Your task to perform on an android device: Open the stopwatch Image 0: 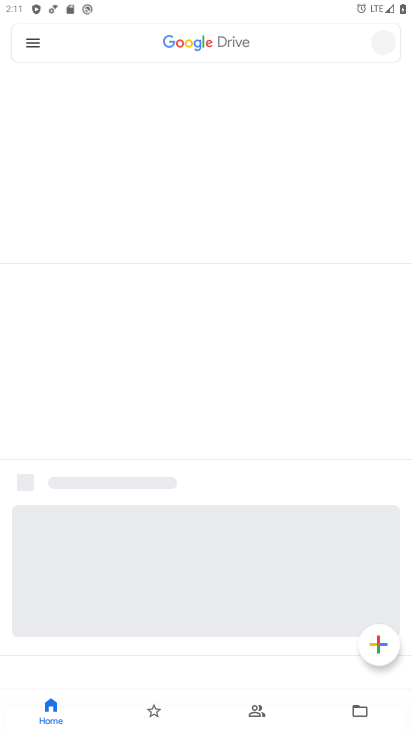
Step 0: drag from (311, 575) to (302, 455)
Your task to perform on an android device: Open the stopwatch Image 1: 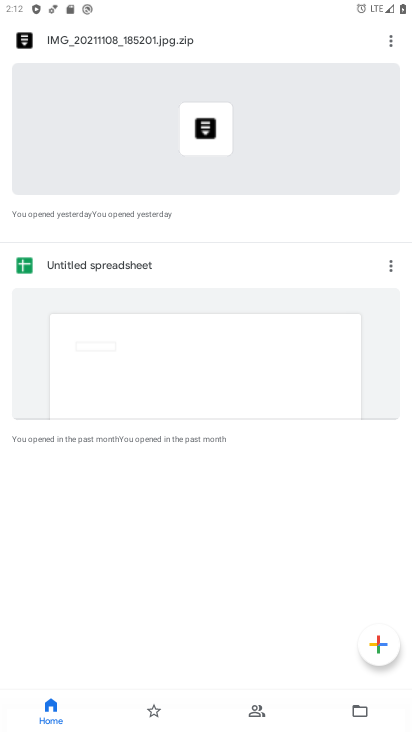
Step 1: press home button
Your task to perform on an android device: Open the stopwatch Image 2: 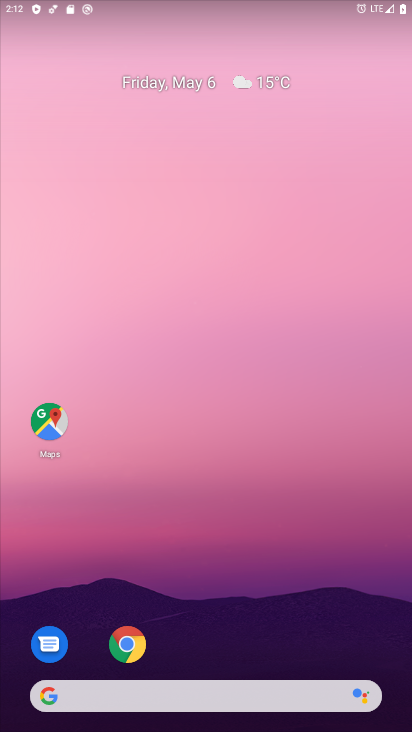
Step 2: drag from (216, 637) to (244, 72)
Your task to perform on an android device: Open the stopwatch Image 3: 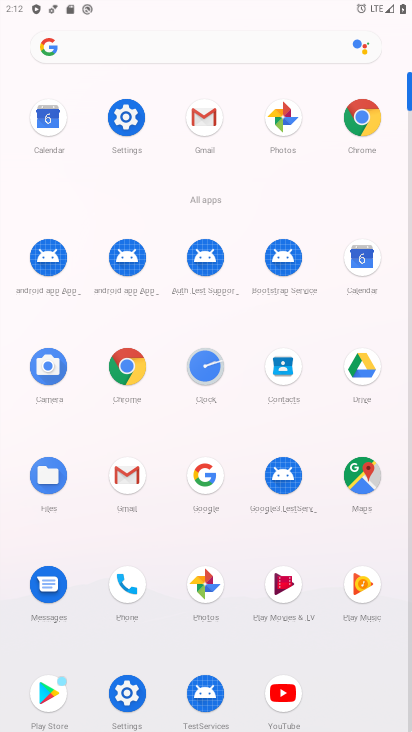
Step 3: click (210, 379)
Your task to perform on an android device: Open the stopwatch Image 4: 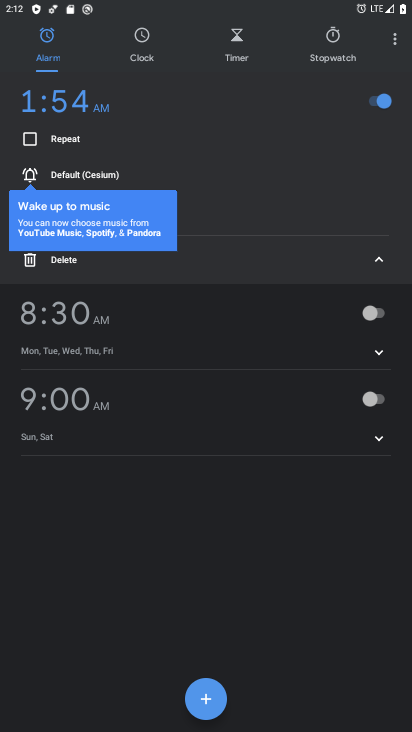
Step 4: click (330, 42)
Your task to perform on an android device: Open the stopwatch Image 5: 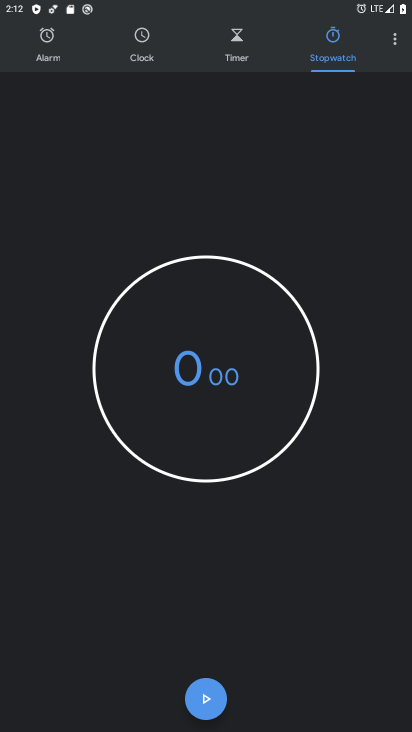
Step 5: click (214, 703)
Your task to perform on an android device: Open the stopwatch Image 6: 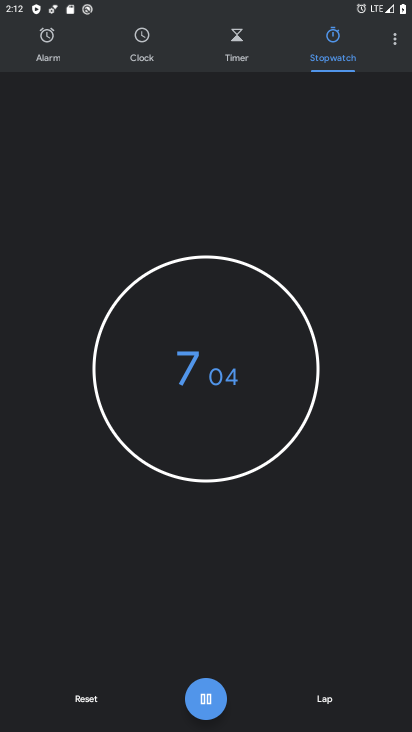
Step 6: task complete